Your task to perform on an android device: check data usage Image 0: 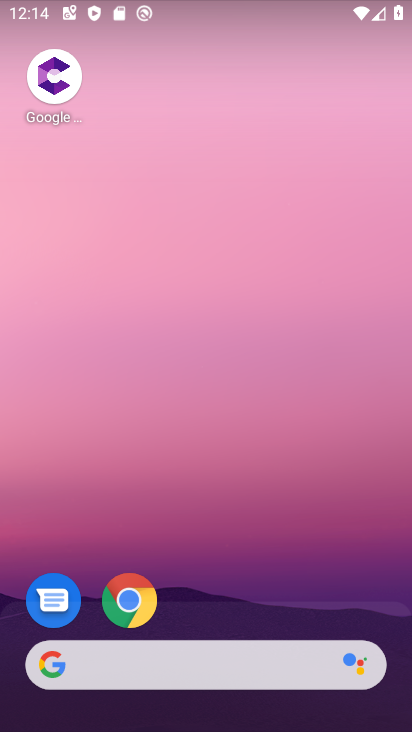
Step 0: drag from (212, 668) to (85, 14)
Your task to perform on an android device: check data usage Image 1: 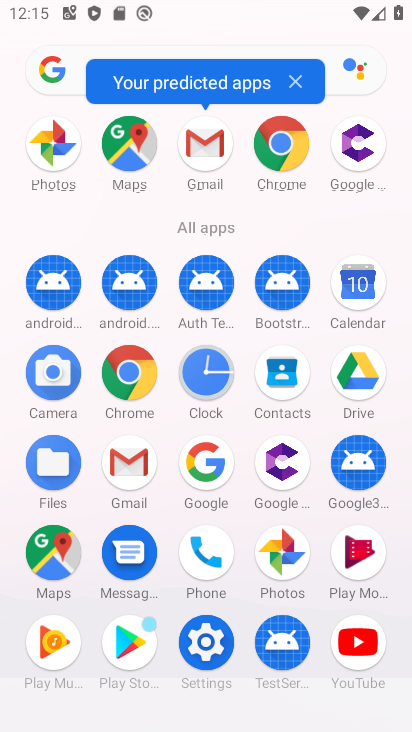
Step 1: click (207, 644)
Your task to perform on an android device: check data usage Image 2: 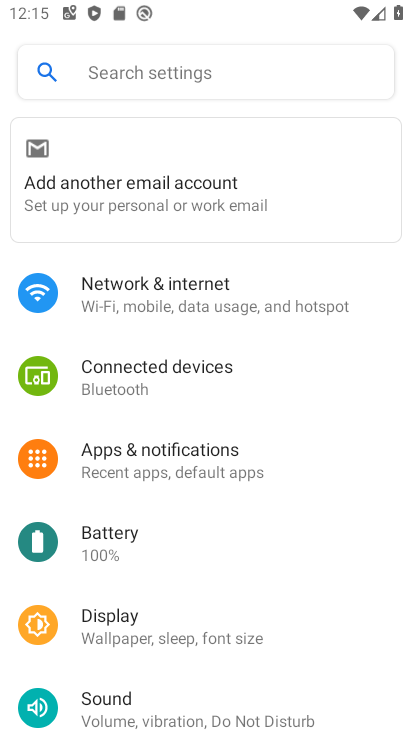
Step 2: click (175, 300)
Your task to perform on an android device: check data usage Image 3: 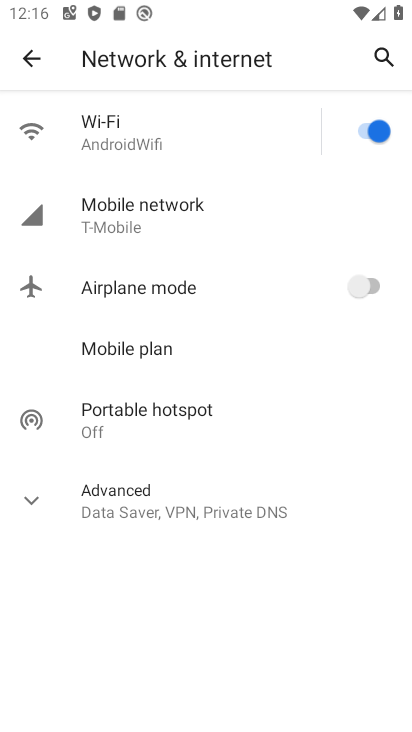
Step 3: click (162, 222)
Your task to perform on an android device: check data usage Image 4: 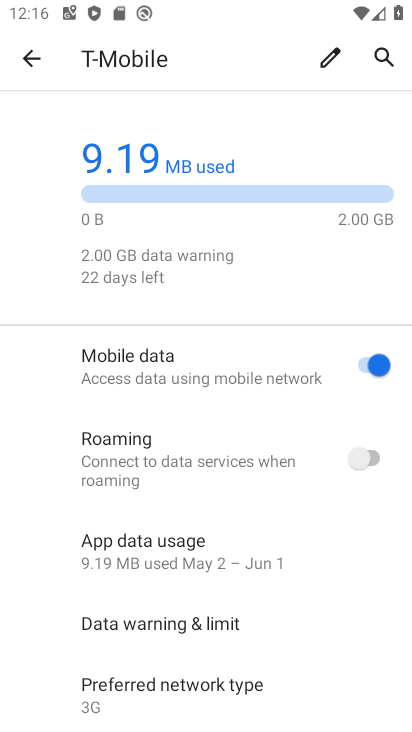
Step 4: task complete